Your task to perform on an android device: choose inbox layout in the gmail app Image 0: 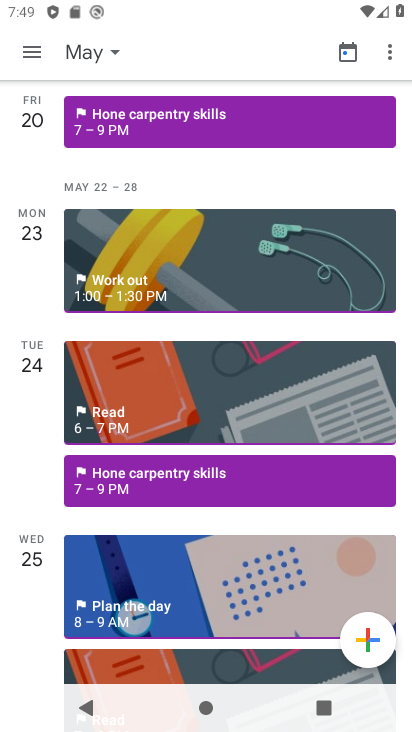
Step 0: press home button
Your task to perform on an android device: choose inbox layout in the gmail app Image 1: 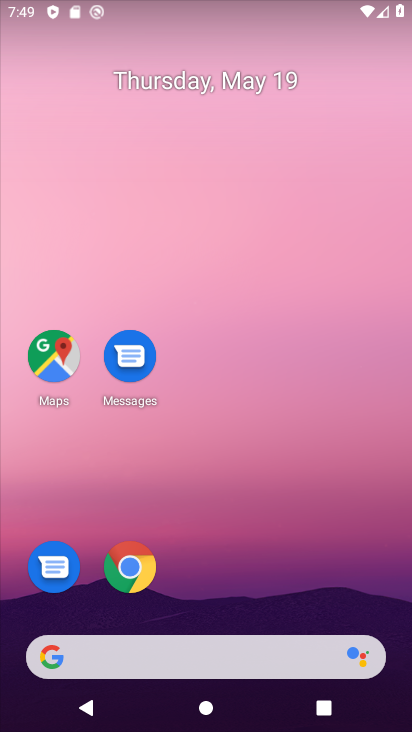
Step 1: drag from (178, 629) to (136, 111)
Your task to perform on an android device: choose inbox layout in the gmail app Image 2: 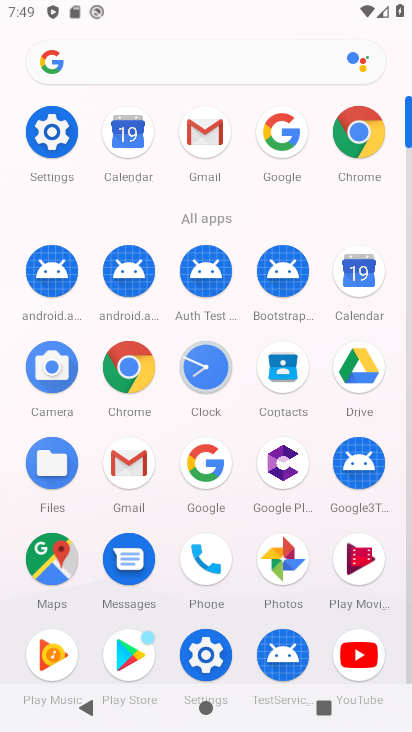
Step 2: click (124, 487)
Your task to perform on an android device: choose inbox layout in the gmail app Image 3: 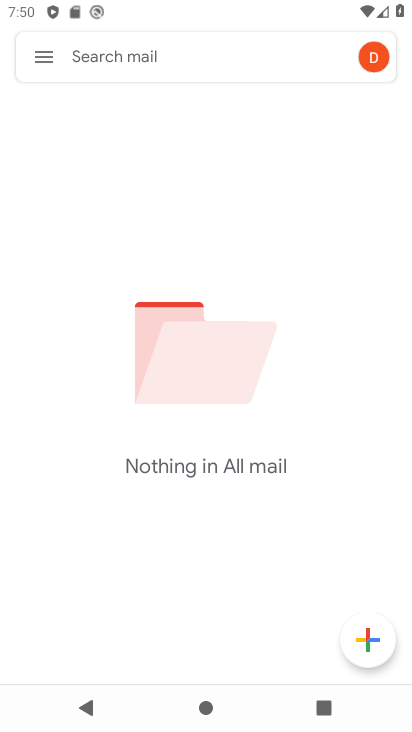
Step 3: click (37, 47)
Your task to perform on an android device: choose inbox layout in the gmail app Image 4: 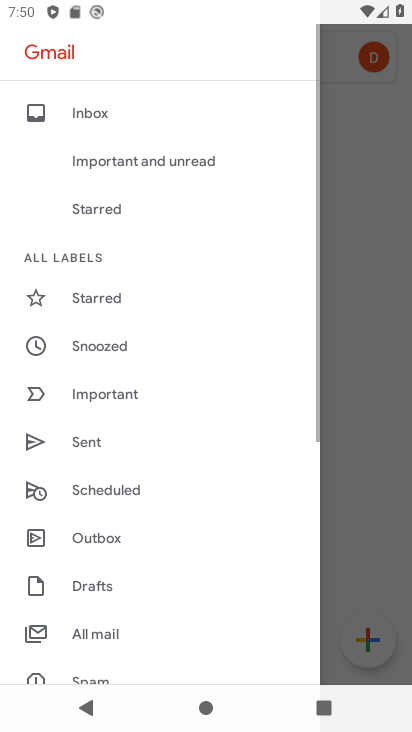
Step 4: drag from (130, 617) to (127, 123)
Your task to perform on an android device: choose inbox layout in the gmail app Image 5: 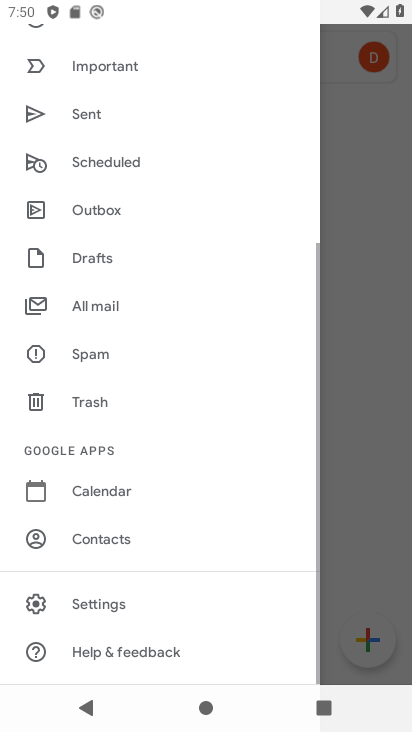
Step 5: click (103, 600)
Your task to perform on an android device: choose inbox layout in the gmail app Image 6: 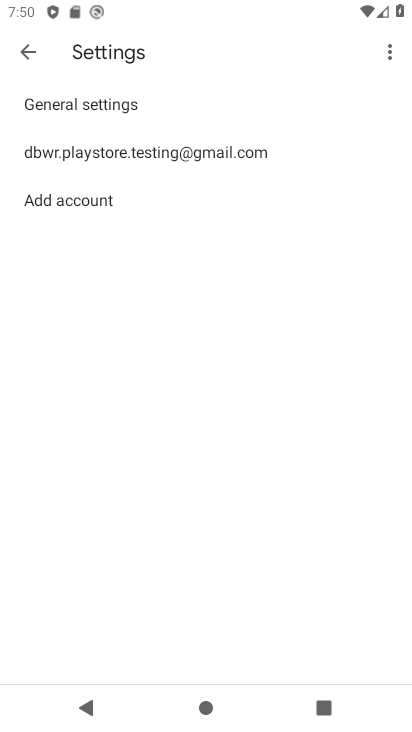
Step 6: click (134, 166)
Your task to perform on an android device: choose inbox layout in the gmail app Image 7: 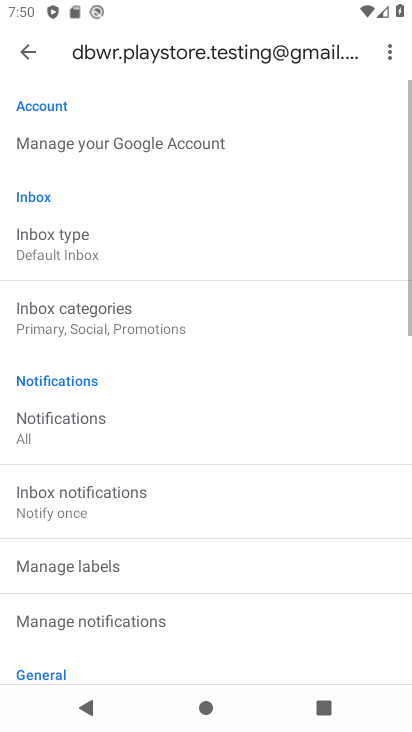
Step 7: click (104, 244)
Your task to perform on an android device: choose inbox layout in the gmail app Image 8: 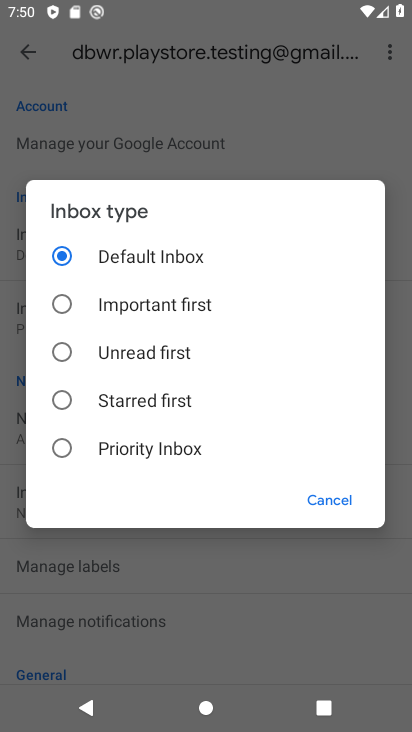
Step 8: click (135, 455)
Your task to perform on an android device: choose inbox layout in the gmail app Image 9: 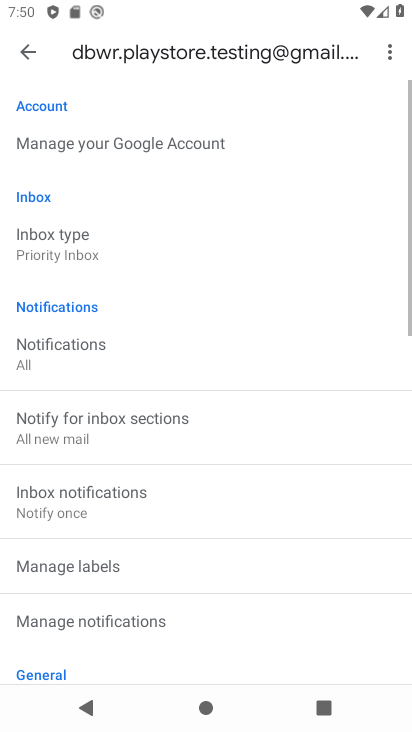
Step 9: click (23, 47)
Your task to perform on an android device: choose inbox layout in the gmail app Image 10: 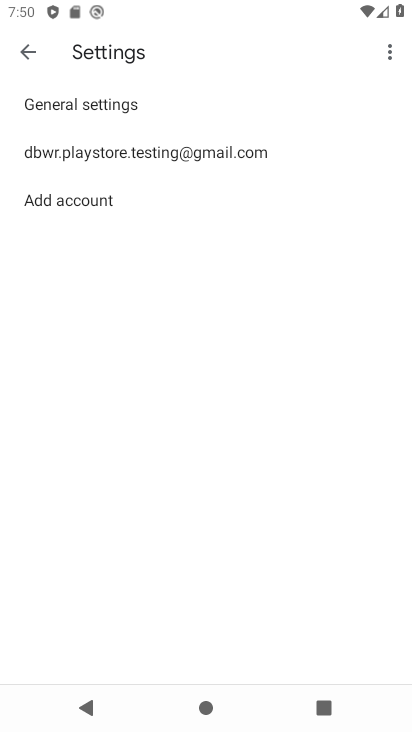
Step 10: click (22, 49)
Your task to perform on an android device: choose inbox layout in the gmail app Image 11: 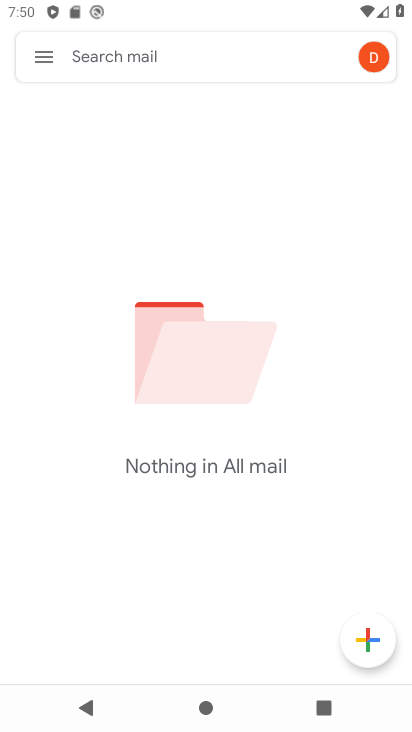
Step 11: click (37, 67)
Your task to perform on an android device: choose inbox layout in the gmail app Image 12: 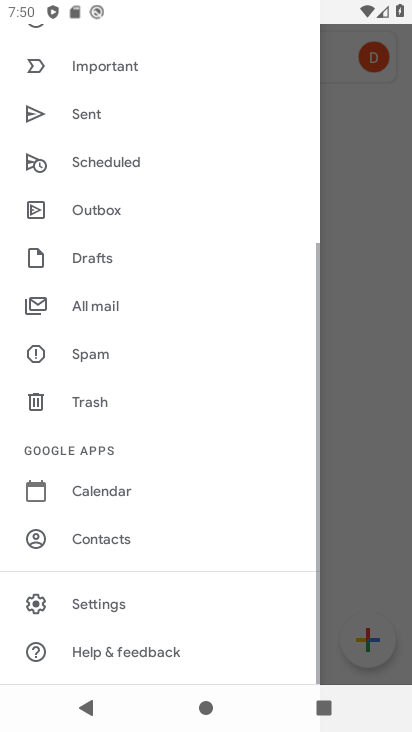
Step 12: drag from (93, 134) to (115, 636)
Your task to perform on an android device: choose inbox layout in the gmail app Image 13: 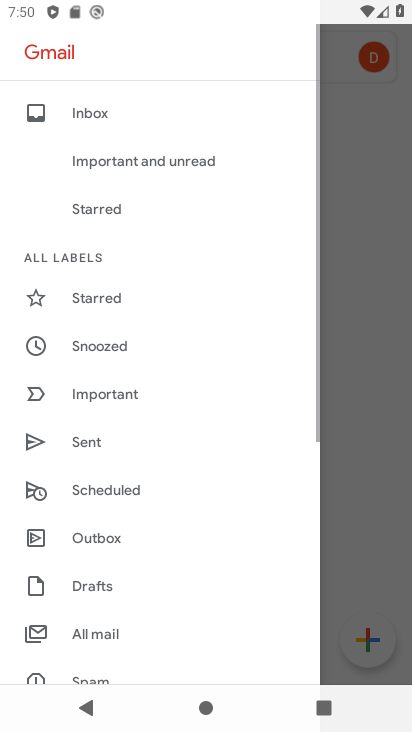
Step 13: click (100, 120)
Your task to perform on an android device: choose inbox layout in the gmail app Image 14: 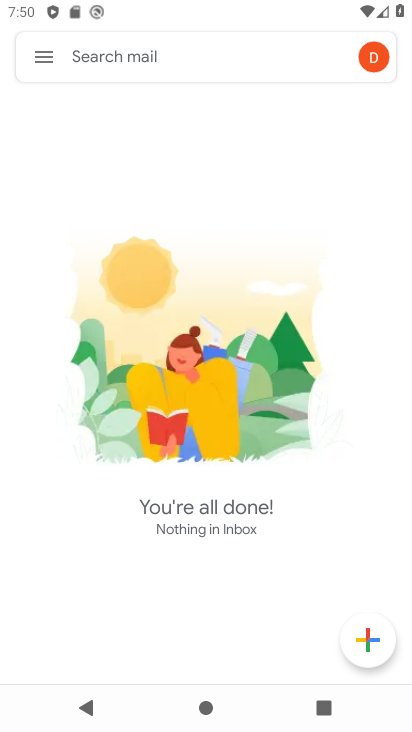
Step 14: task complete